Your task to perform on an android device: Show me popular games on the Play Store Image 0: 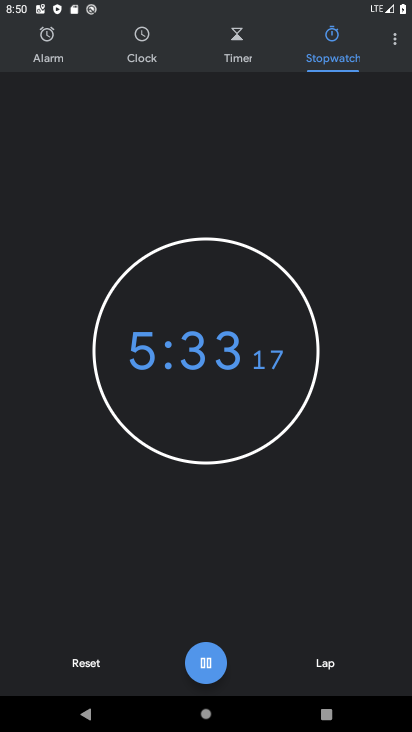
Step 0: press home button
Your task to perform on an android device: Show me popular games on the Play Store Image 1: 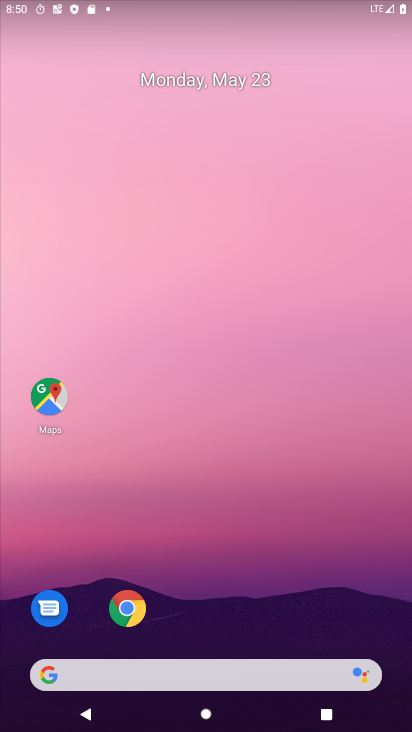
Step 1: drag from (201, 688) to (198, 337)
Your task to perform on an android device: Show me popular games on the Play Store Image 2: 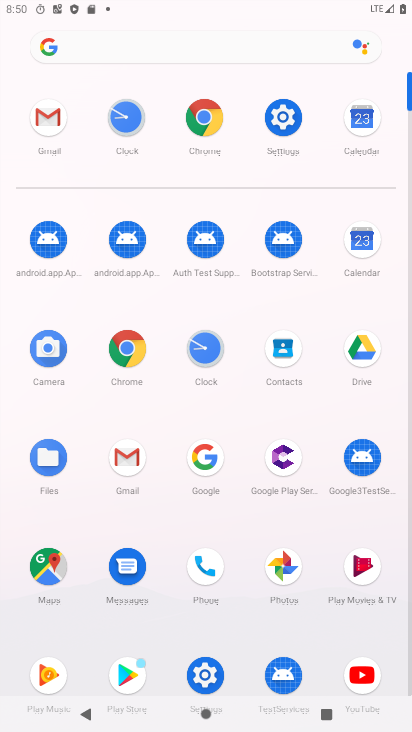
Step 2: click (115, 659)
Your task to perform on an android device: Show me popular games on the Play Store Image 3: 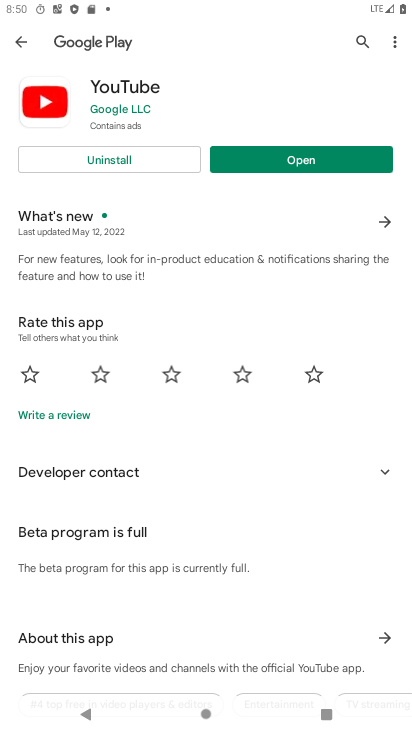
Step 3: click (21, 42)
Your task to perform on an android device: Show me popular games on the Play Store Image 4: 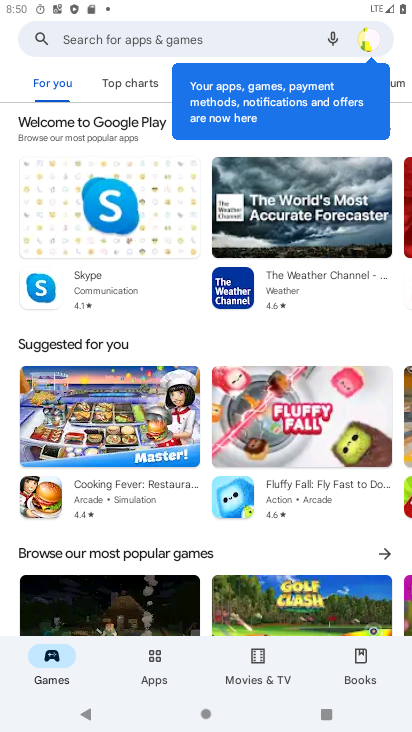
Step 4: drag from (225, 534) to (286, 192)
Your task to perform on an android device: Show me popular games on the Play Store Image 5: 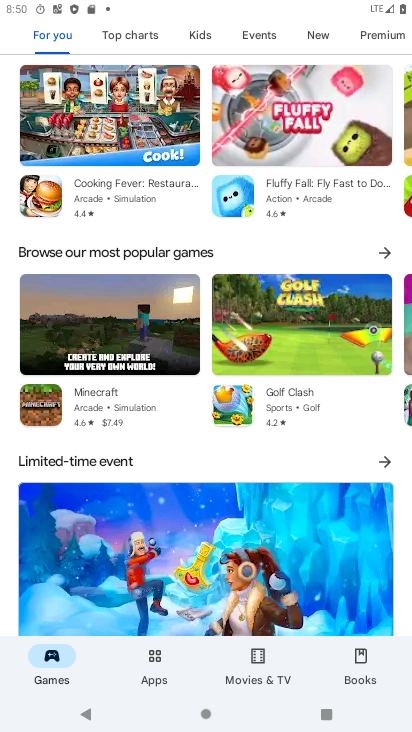
Step 5: click (157, 225)
Your task to perform on an android device: Show me popular games on the Play Store Image 6: 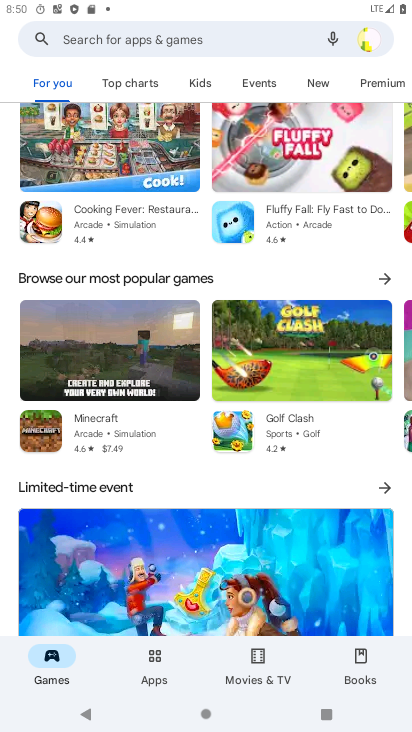
Step 6: click (389, 275)
Your task to perform on an android device: Show me popular games on the Play Store Image 7: 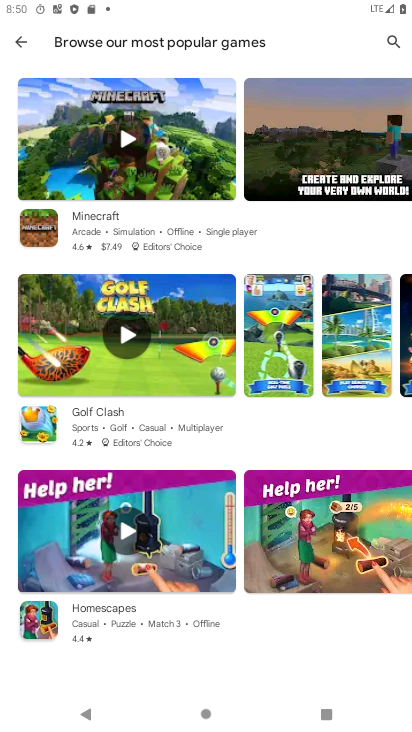
Step 7: task complete